Your task to perform on an android device: delete a single message in the gmail app Image 0: 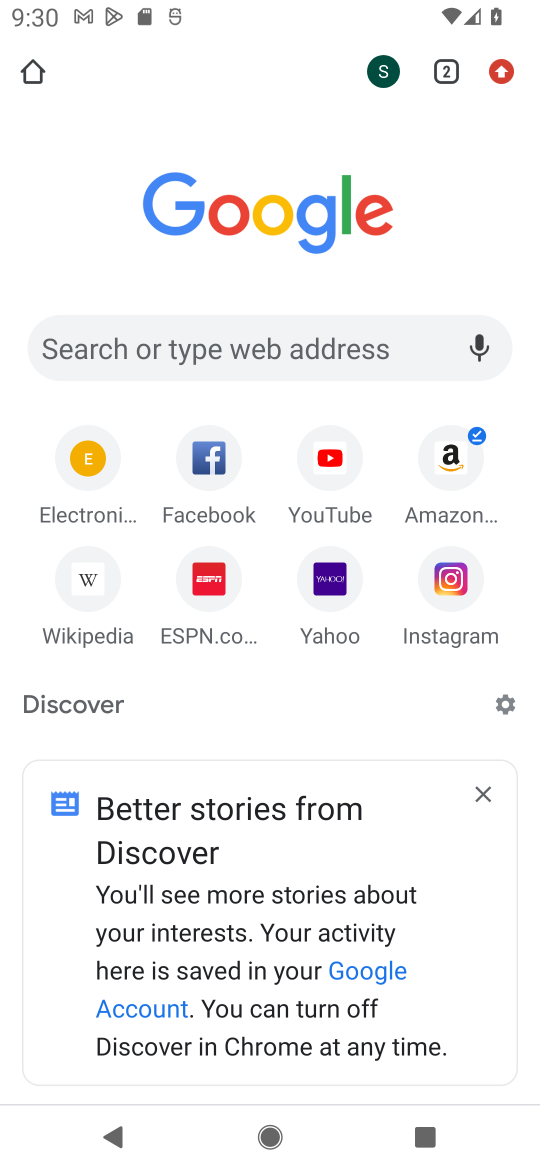
Step 0: press home button
Your task to perform on an android device: delete a single message in the gmail app Image 1: 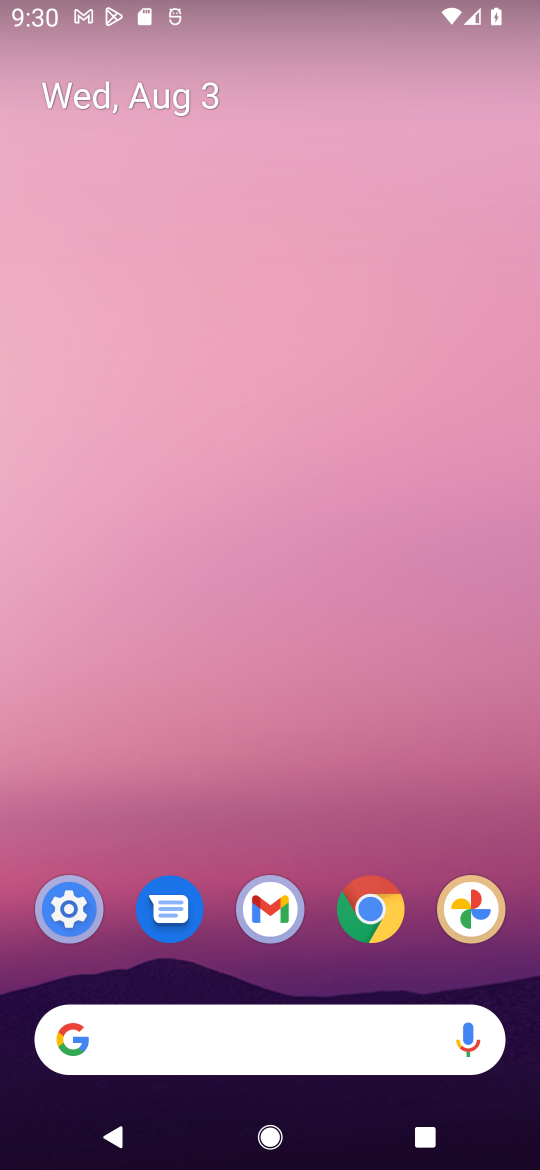
Step 1: drag from (428, 825) to (407, 269)
Your task to perform on an android device: delete a single message in the gmail app Image 2: 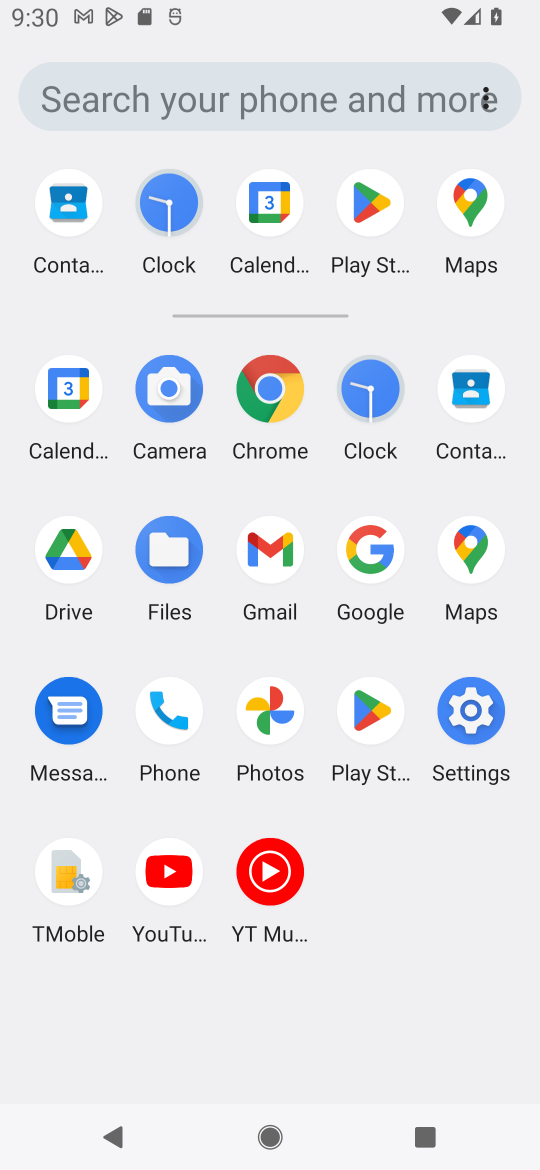
Step 2: click (268, 553)
Your task to perform on an android device: delete a single message in the gmail app Image 3: 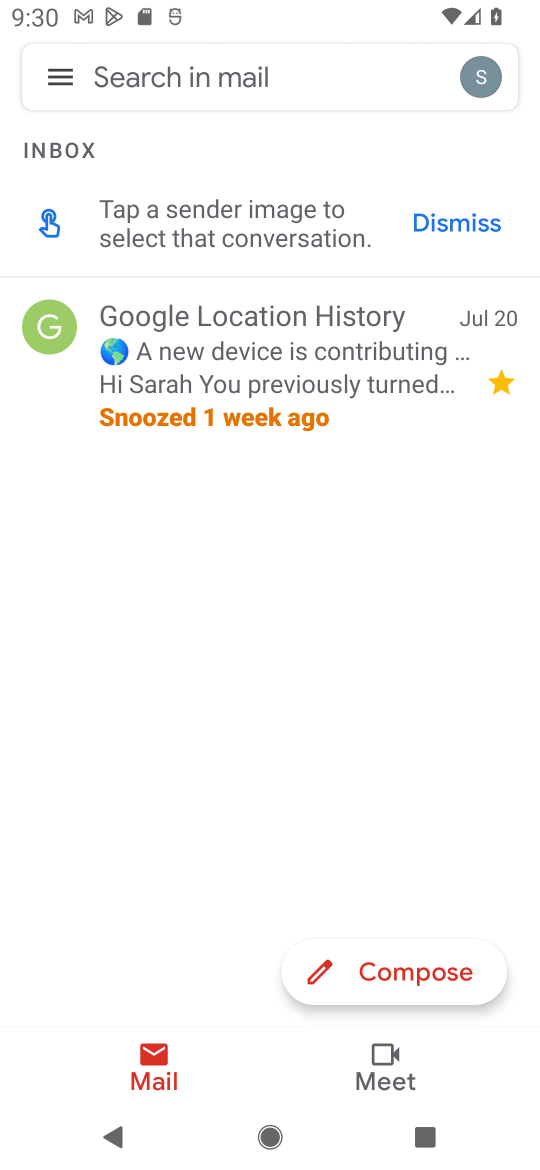
Step 3: click (293, 349)
Your task to perform on an android device: delete a single message in the gmail app Image 4: 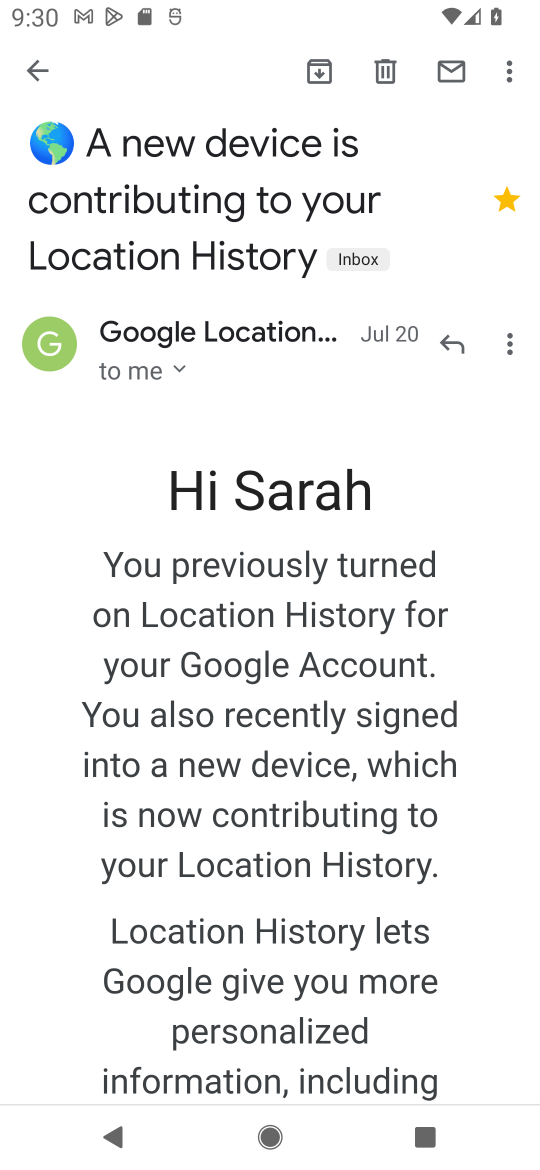
Step 4: click (387, 71)
Your task to perform on an android device: delete a single message in the gmail app Image 5: 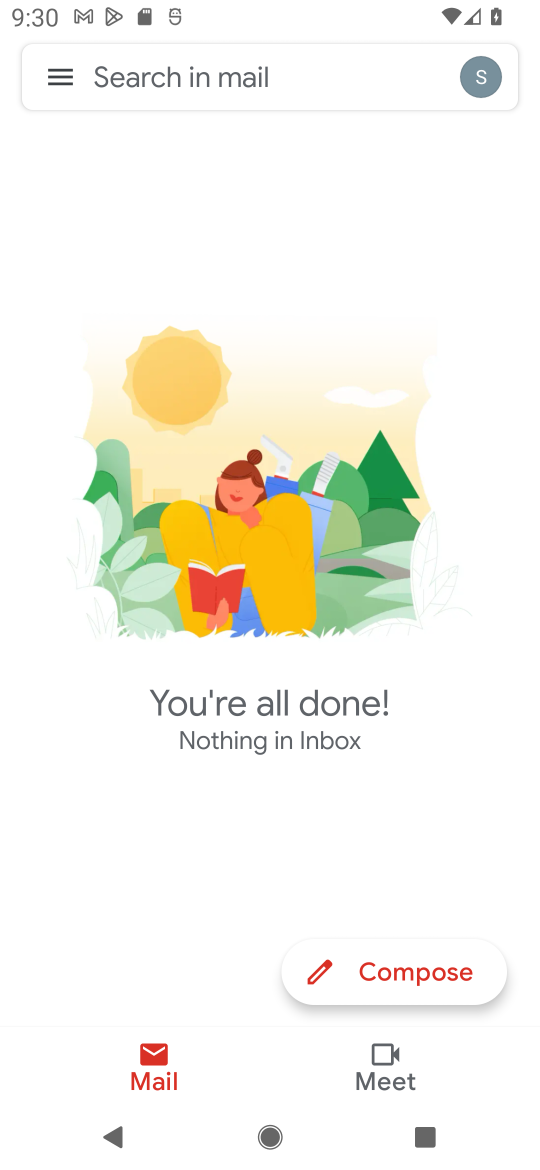
Step 5: task complete